Your task to perform on an android device: Open Google Chrome Image 0: 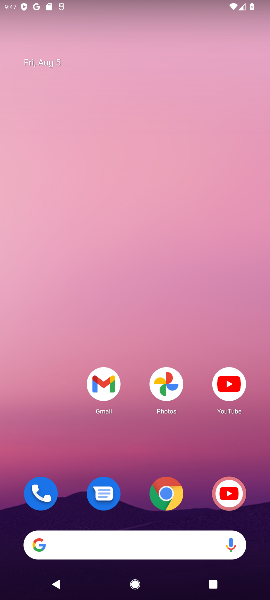
Step 0: press home button
Your task to perform on an android device: Open Google Chrome Image 1: 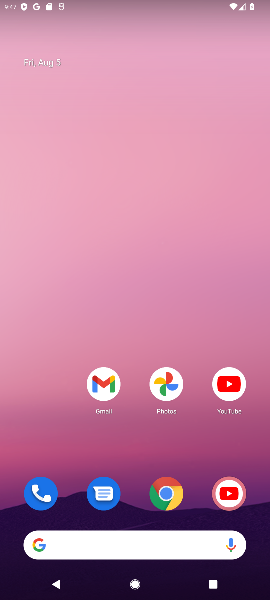
Step 1: drag from (137, 448) to (148, 42)
Your task to perform on an android device: Open Google Chrome Image 2: 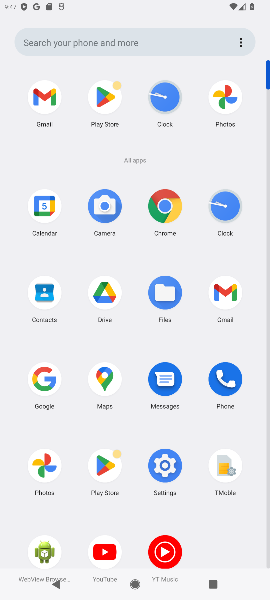
Step 2: click (160, 194)
Your task to perform on an android device: Open Google Chrome Image 3: 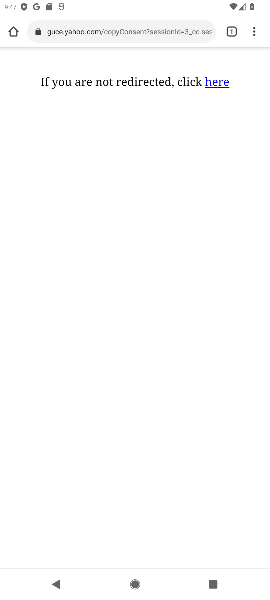
Step 3: click (234, 29)
Your task to perform on an android device: Open Google Chrome Image 4: 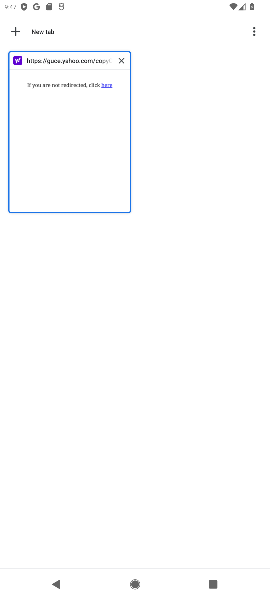
Step 4: click (13, 28)
Your task to perform on an android device: Open Google Chrome Image 5: 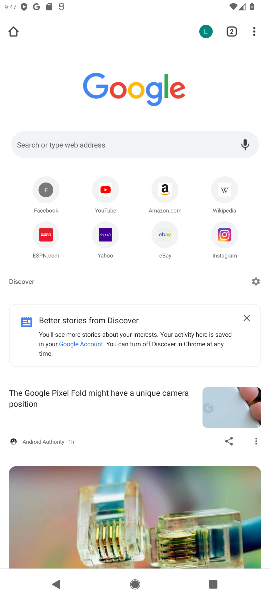
Step 5: task complete